Your task to perform on an android device: What is the recent news? Image 0: 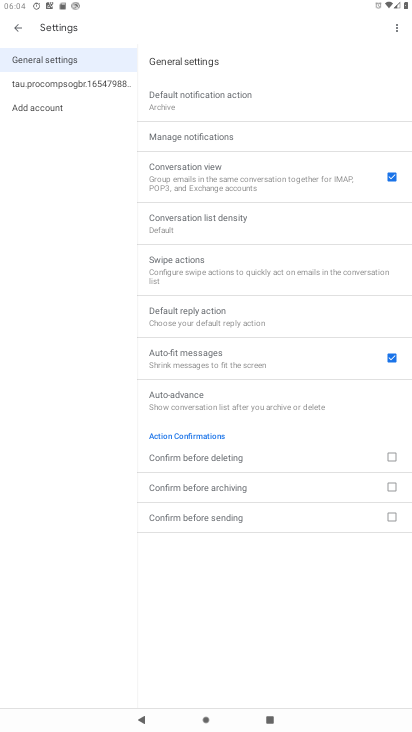
Step 0: press home button
Your task to perform on an android device: What is the recent news? Image 1: 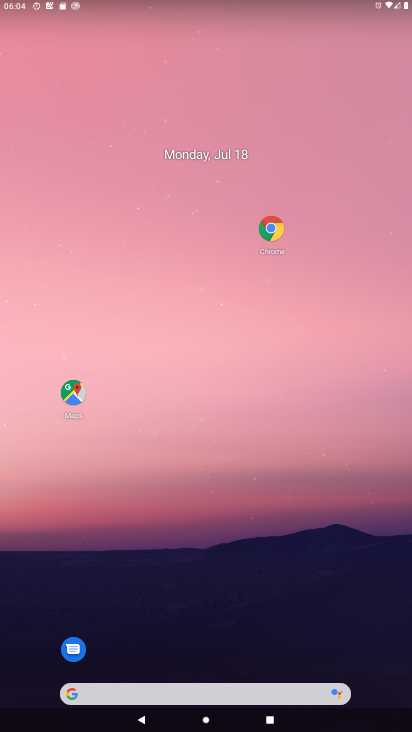
Step 1: click (159, 701)
Your task to perform on an android device: What is the recent news? Image 2: 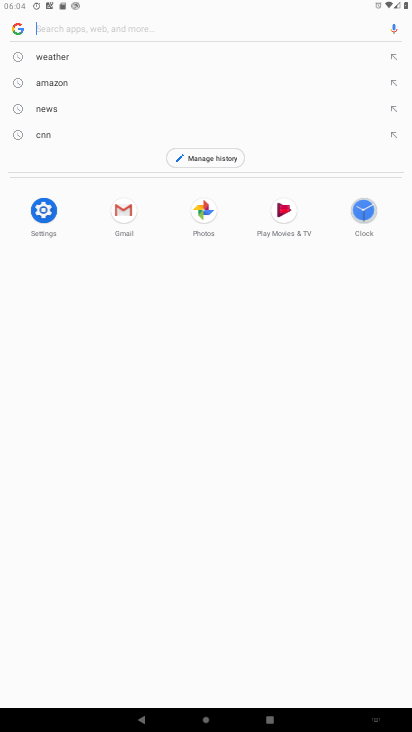
Step 2: click (83, 119)
Your task to perform on an android device: What is the recent news? Image 3: 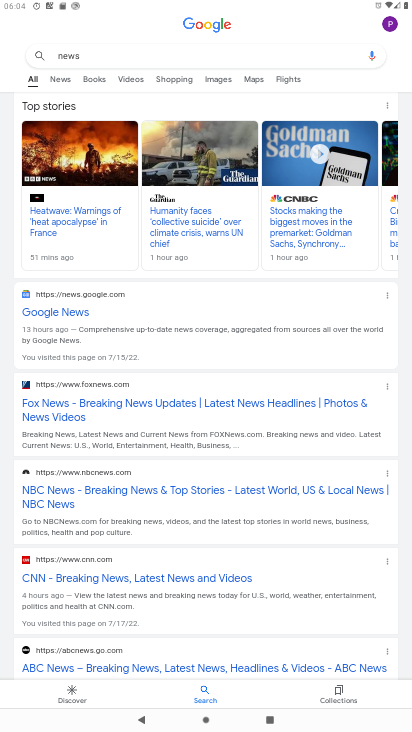
Step 3: task complete